Your task to perform on an android device: uninstall "Upside-Cash back on gas & food" Image 0: 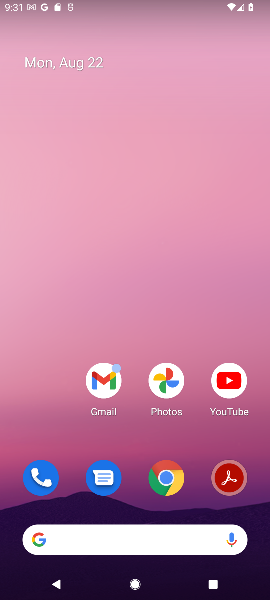
Step 0: drag from (141, 513) to (153, 71)
Your task to perform on an android device: uninstall "Upside-Cash back on gas & food" Image 1: 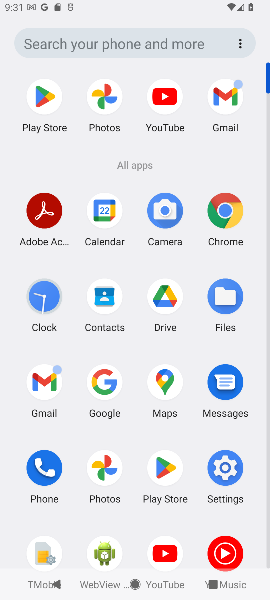
Step 1: click (54, 95)
Your task to perform on an android device: uninstall "Upside-Cash back on gas & food" Image 2: 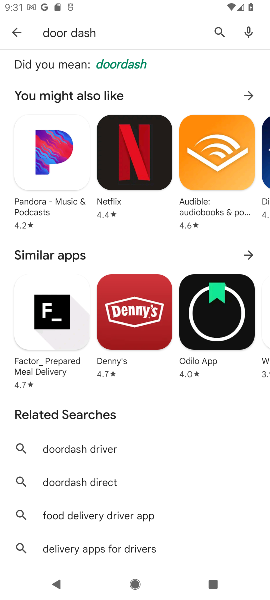
Step 2: click (227, 30)
Your task to perform on an android device: uninstall "Upside-Cash back on gas & food" Image 3: 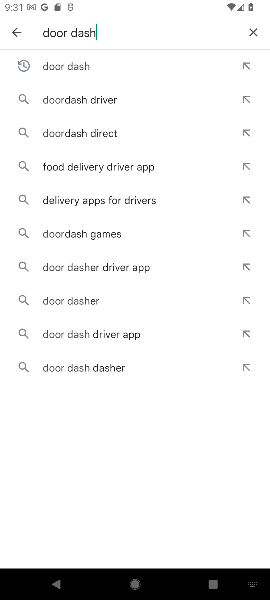
Step 3: click (245, 27)
Your task to perform on an android device: uninstall "Upside-Cash back on gas & food" Image 4: 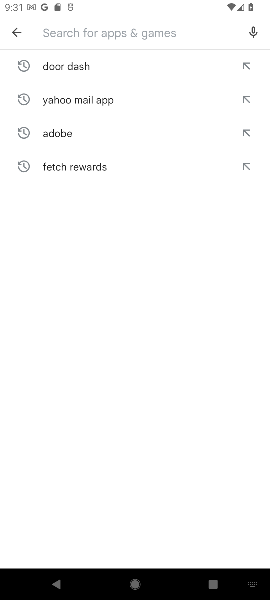
Step 4: type "upside"
Your task to perform on an android device: uninstall "Upside-Cash back on gas & food" Image 5: 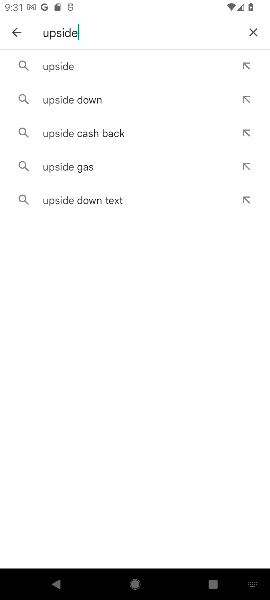
Step 5: click (129, 74)
Your task to perform on an android device: uninstall "Upside-Cash back on gas & food" Image 6: 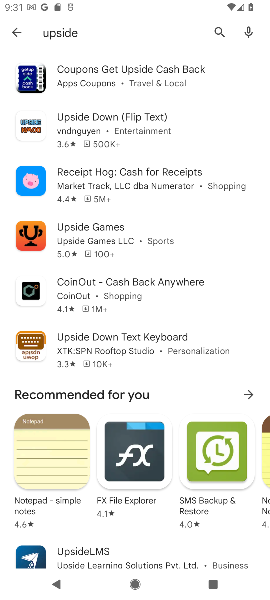
Step 6: task complete